Your task to perform on an android device: toggle data saver in the chrome app Image 0: 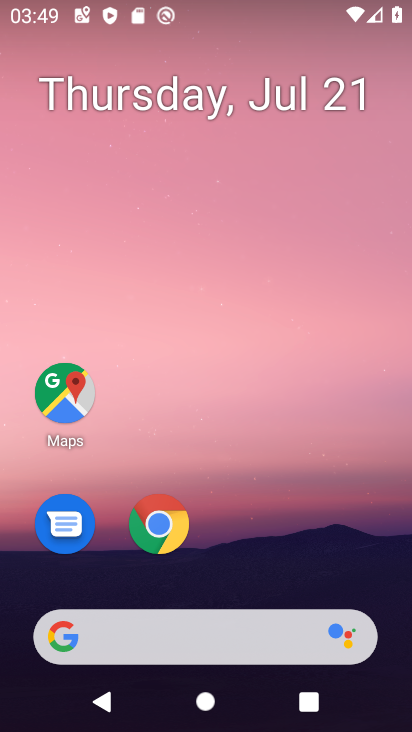
Step 0: click (197, 517)
Your task to perform on an android device: toggle data saver in the chrome app Image 1: 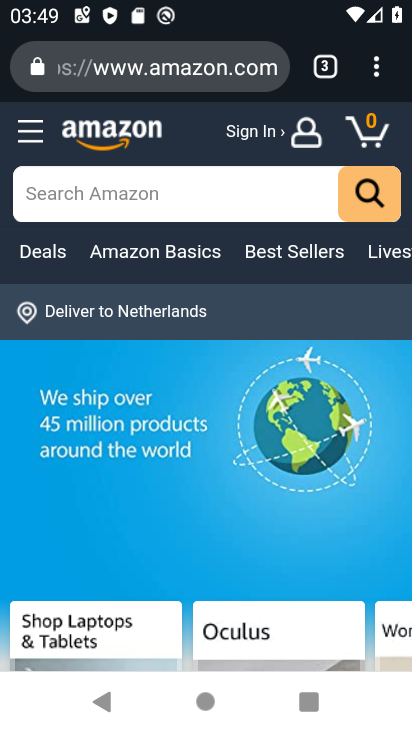
Step 1: click (374, 72)
Your task to perform on an android device: toggle data saver in the chrome app Image 2: 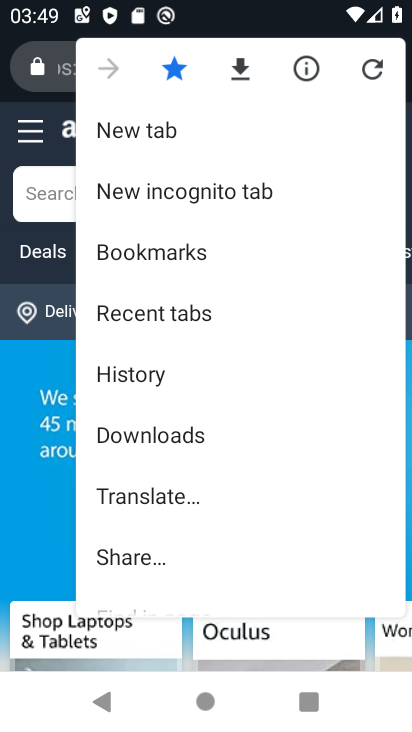
Step 2: drag from (260, 503) to (280, 162)
Your task to perform on an android device: toggle data saver in the chrome app Image 3: 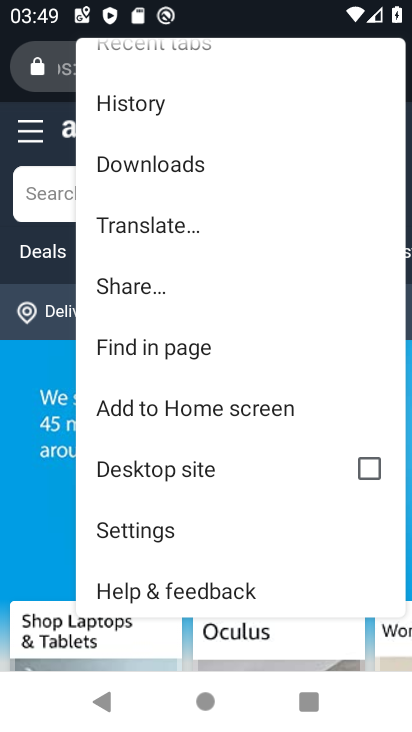
Step 3: click (168, 528)
Your task to perform on an android device: toggle data saver in the chrome app Image 4: 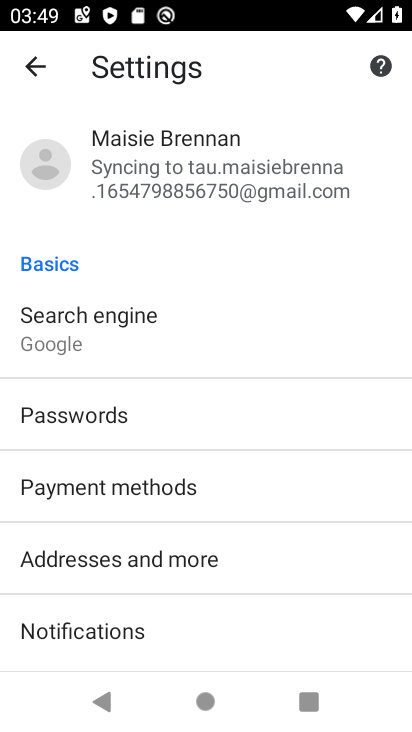
Step 4: drag from (323, 541) to (273, 2)
Your task to perform on an android device: toggle data saver in the chrome app Image 5: 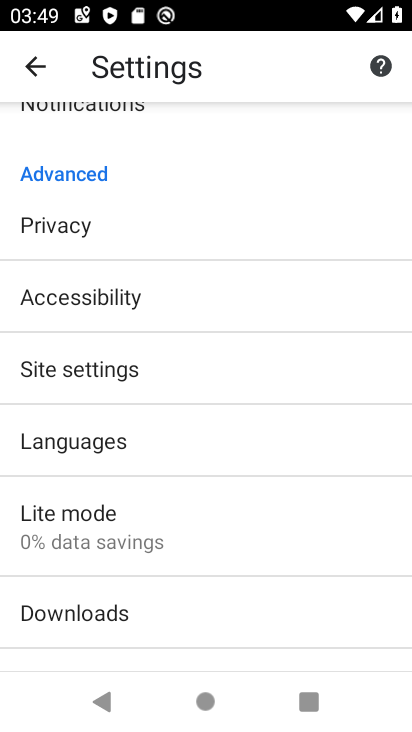
Step 5: click (194, 545)
Your task to perform on an android device: toggle data saver in the chrome app Image 6: 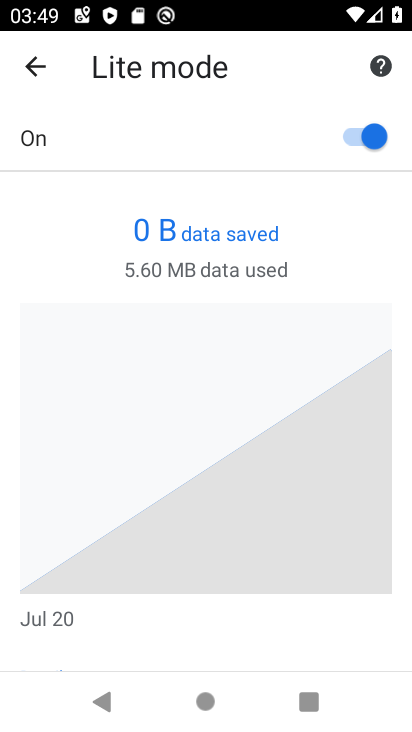
Step 6: click (359, 131)
Your task to perform on an android device: toggle data saver in the chrome app Image 7: 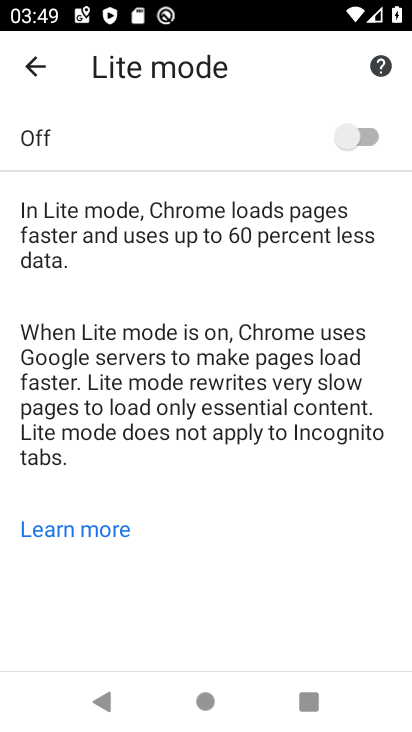
Step 7: task complete